Your task to perform on an android device: check storage Image 0: 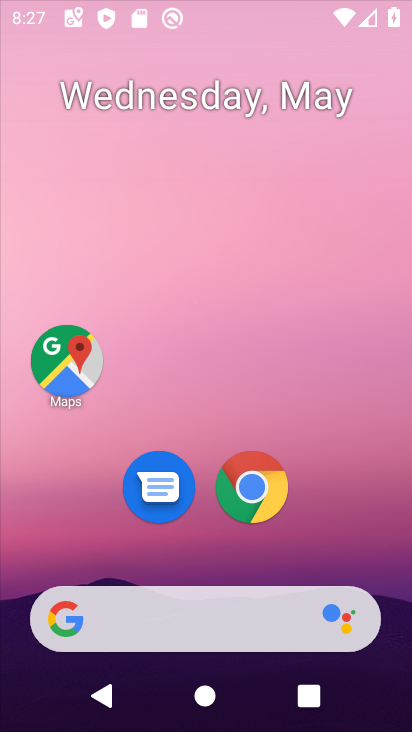
Step 0: drag from (206, 553) to (239, 44)
Your task to perform on an android device: check storage Image 1: 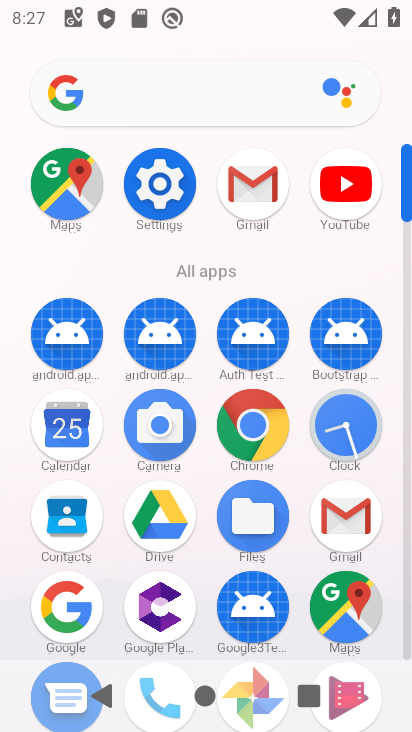
Step 1: click (155, 177)
Your task to perform on an android device: check storage Image 2: 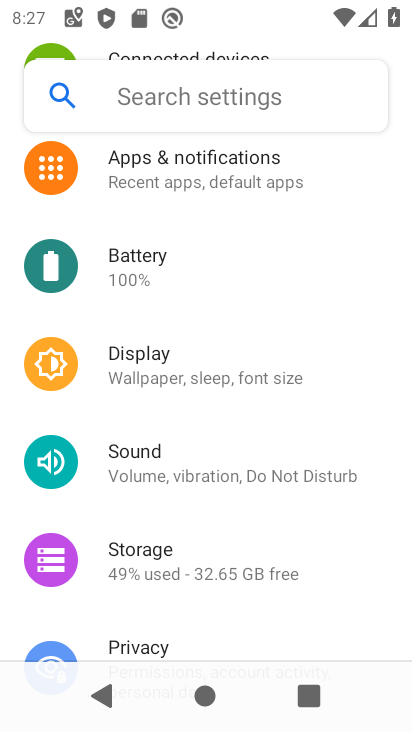
Step 2: click (184, 552)
Your task to perform on an android device: check storage Image 3: 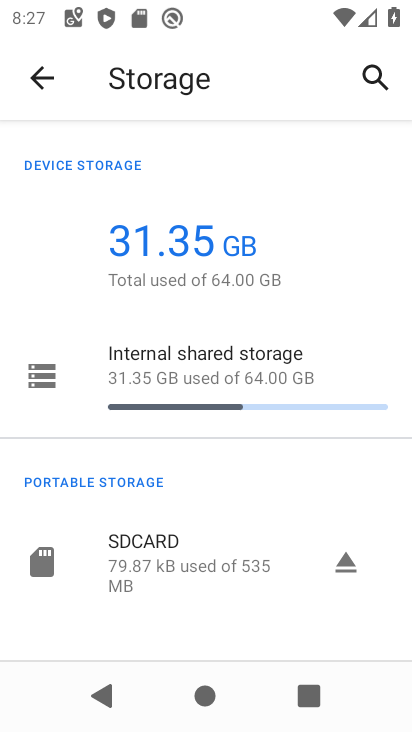
Step 3: task complete